Your task to perform on an android device: Open Google Maps and go to "Timeline" Image 0: 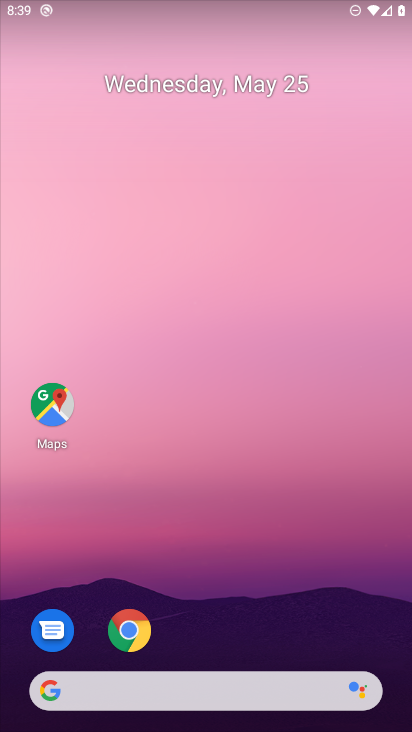
Step 0: click (55, 400)
Your task to perform on an android device: Open Google Maps and go to "Timeline" Image 1: 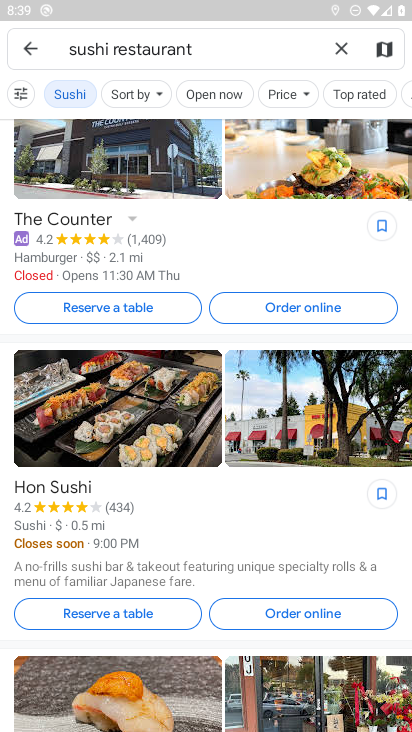
Step 1: click (346, 49)
Your task to perform on an android device: Open Google Maps and go to "Timeline" Image 2: 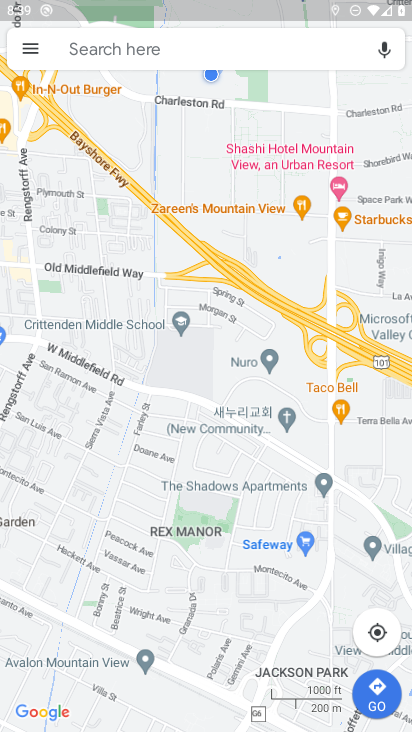
Step 2: click (30, 51)
Your task to perform on an android device: Open Google Maps and go to "Timeline" Image 3: 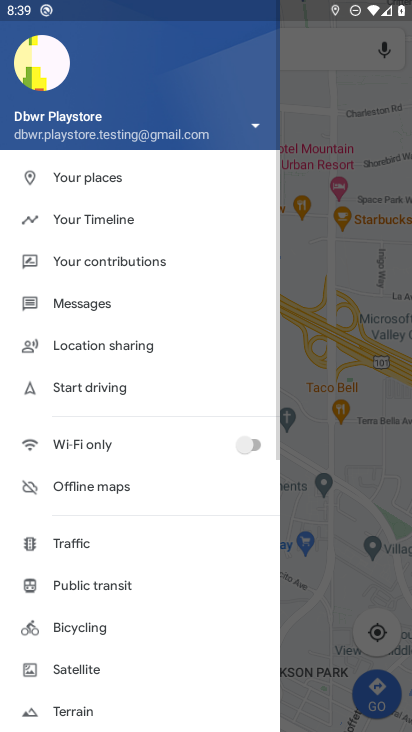
Step 3: click (114, 226)
Your task to perform on an android device: Open Google Maps and go to "Timeline" Image 4: 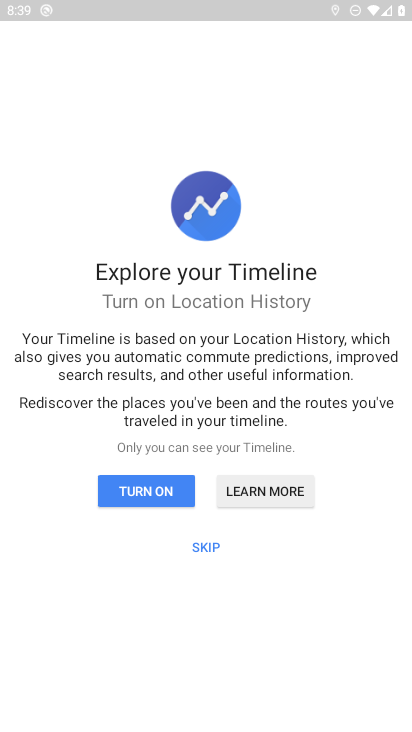
Step 4: click (282, 488)
Your task to perform on an android device: Open Google Maps and go to "Timeline" Image 5: 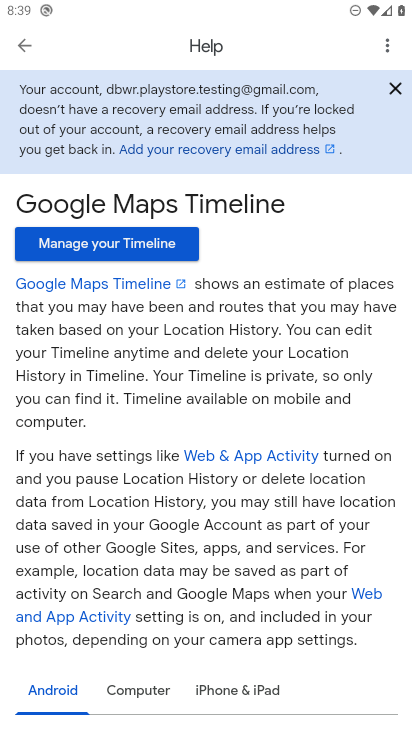
Step 5: task complete